Your task to perform on an android device: Go to privacy settings Image 0: 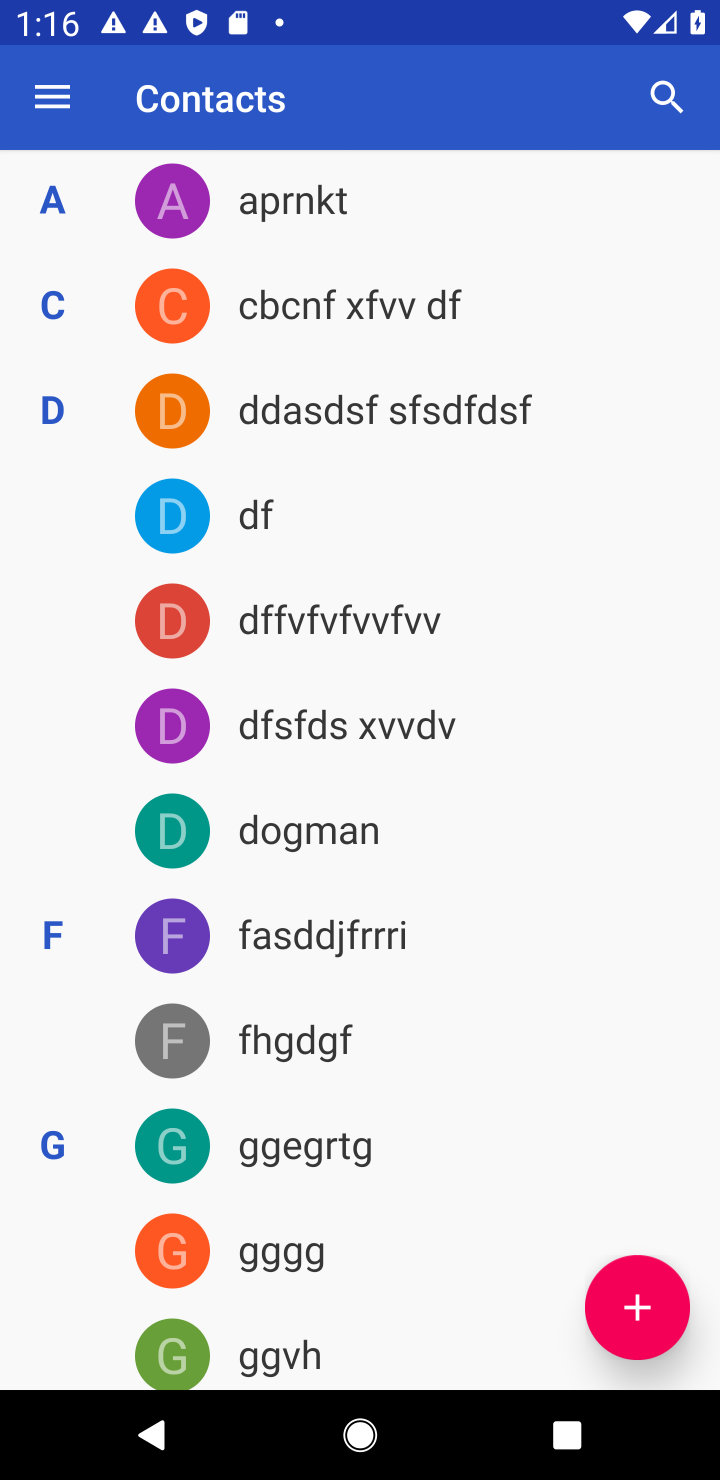
Step 0: press home button
Your task to perform on an android device: Go to privacy settings Image 1: 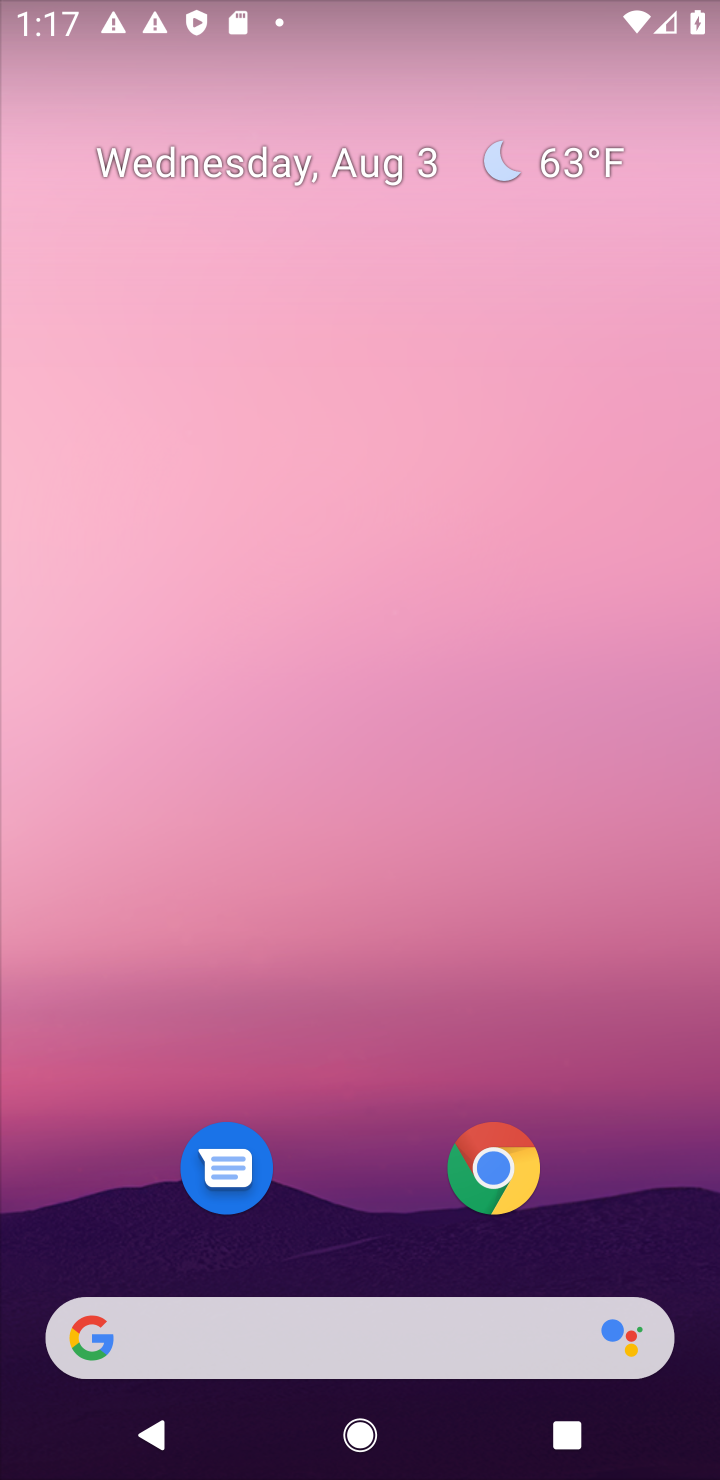
Step 1: drag from (681, 1238) to (619, 257)
Your task to perform on an android device: Go to privacy settings Image 2: 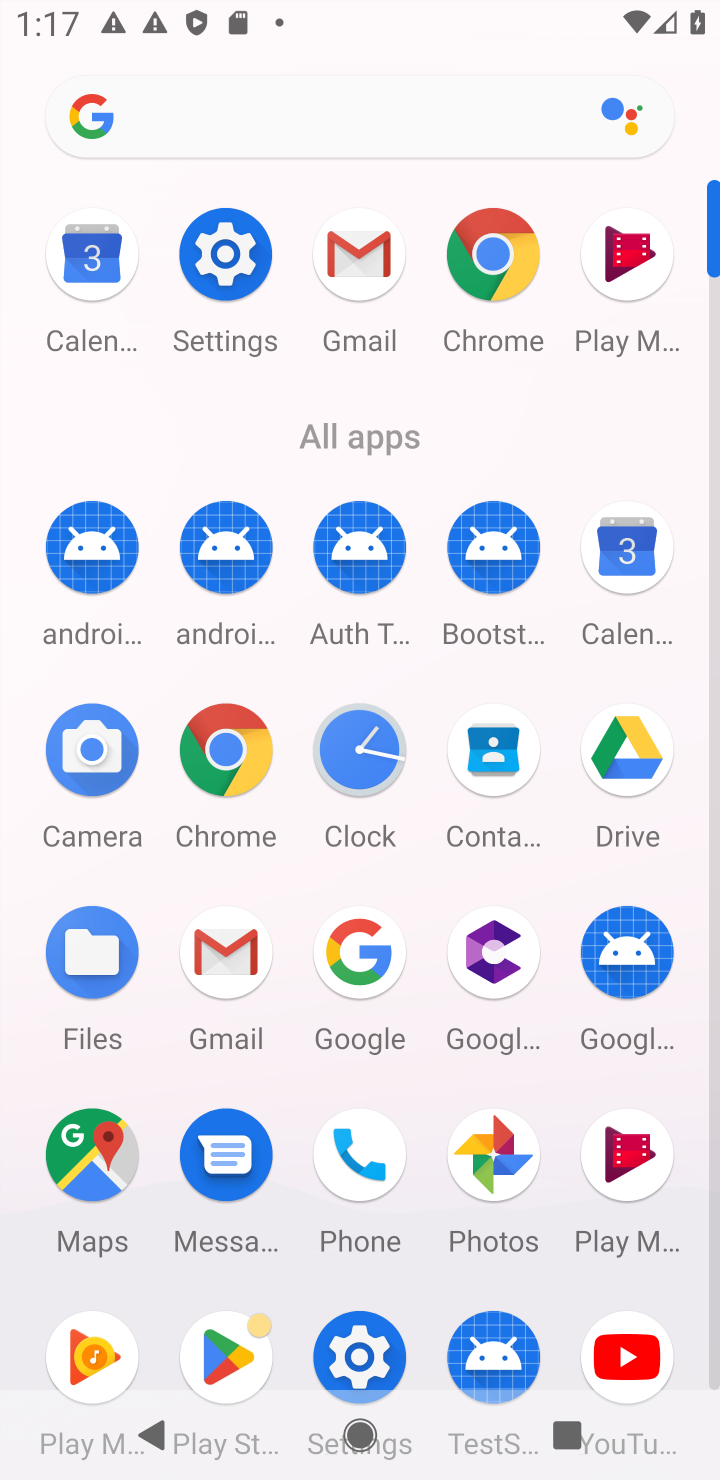
Step 2: click (357, 1354)
Your task to perform on an android device: Go to privacy settings Image 3: 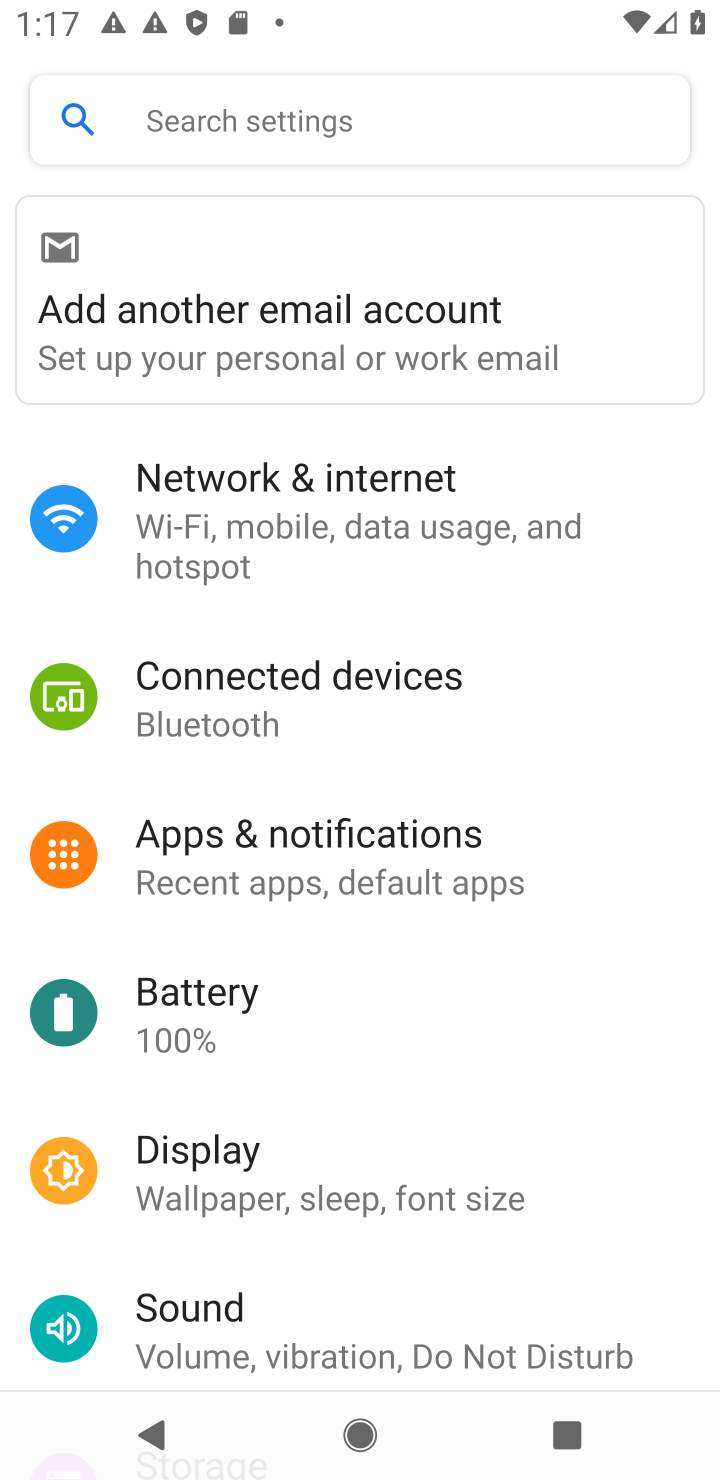
Step 3: drag from (580, 1229) to (598, 477)
Your task to perform on an android device: Go to privacy settings Image 4: 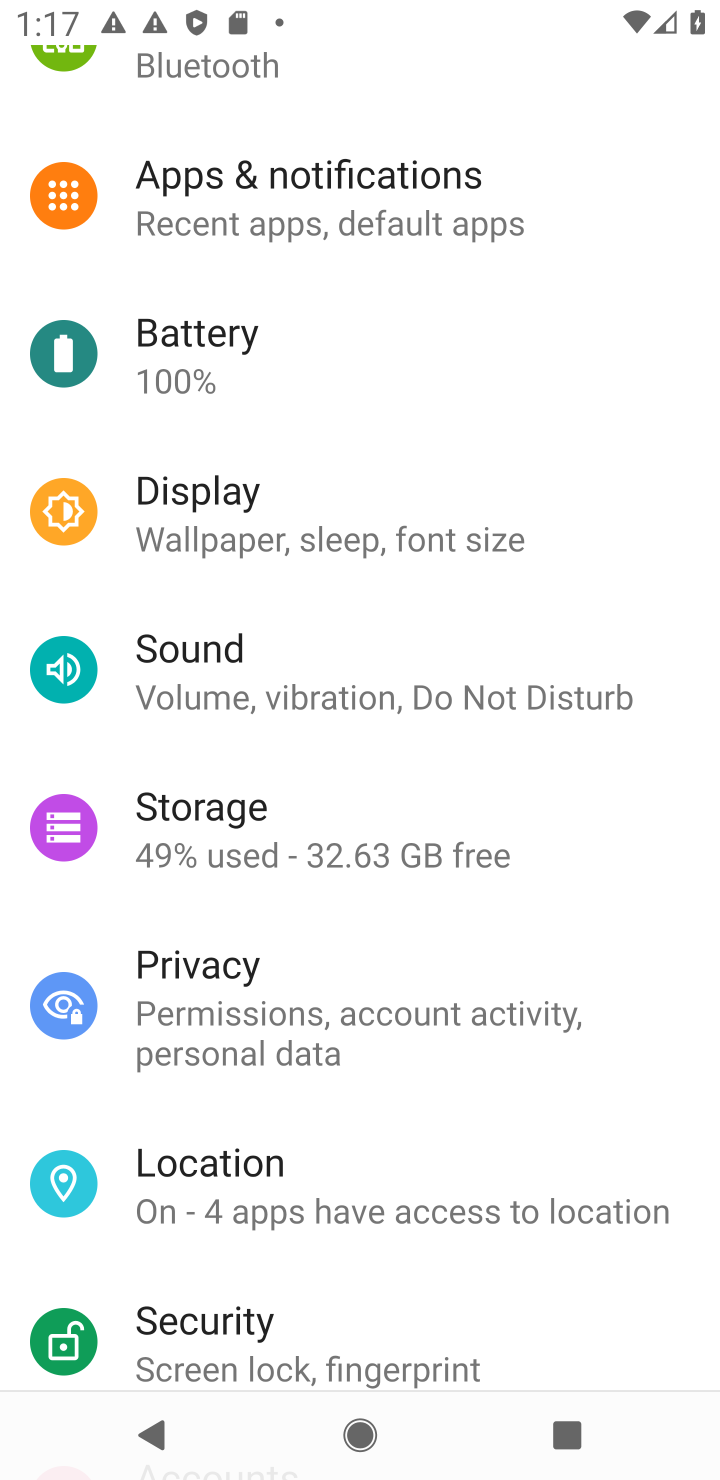
Step 4: click (249, 984)
Your task to perform on an android device: Go to privacy settings Image 5: 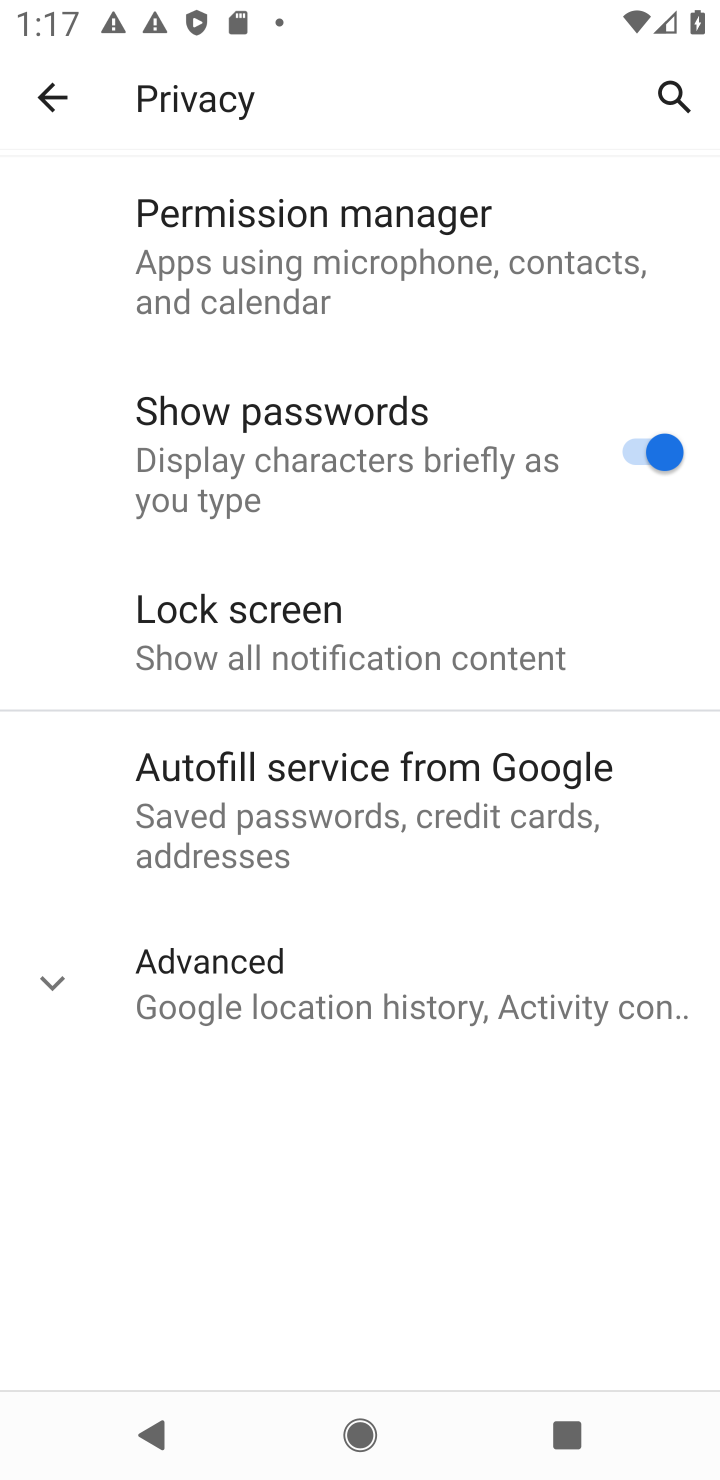
Step 5: click (44, 993)
Your task to perform on an android device: Go to privacy settings Image 6: 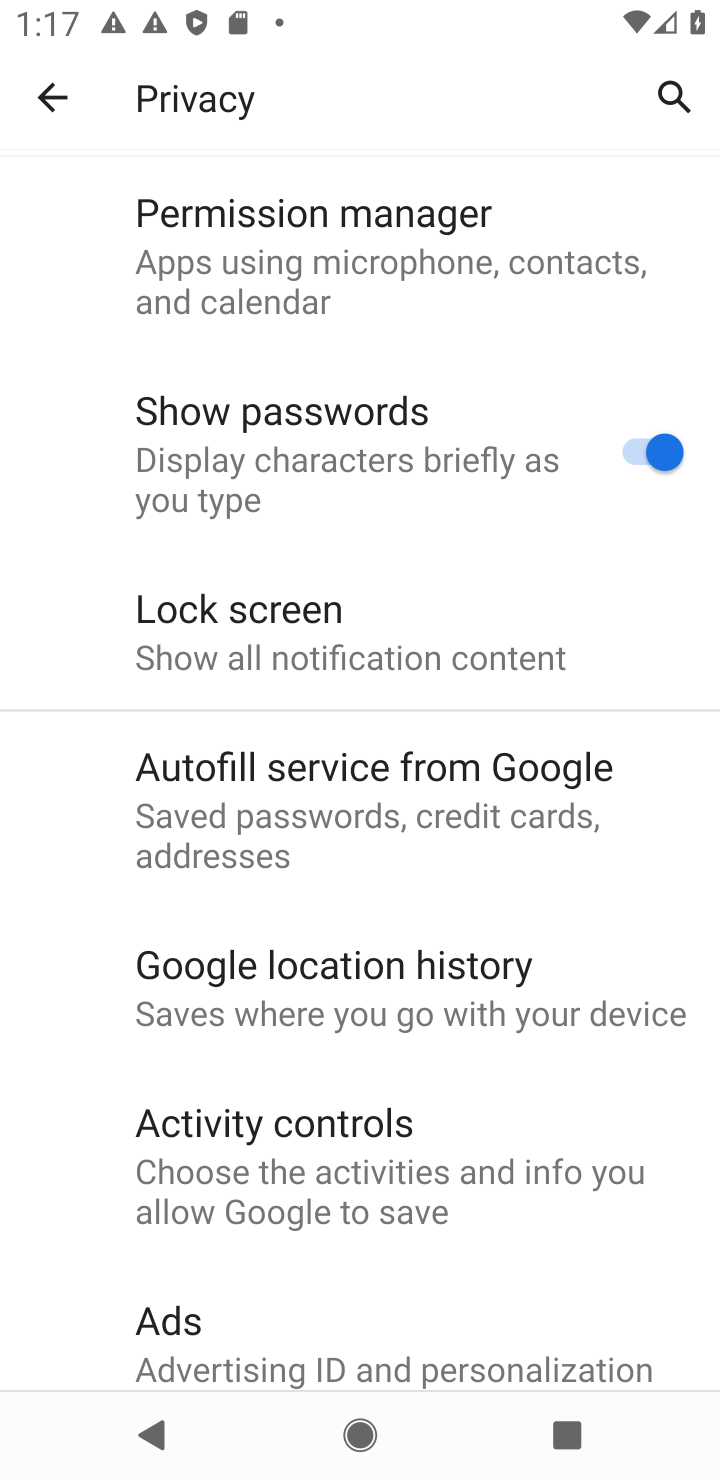
Step 6: task complete